Your task to perform on an android device: Open the web browser Image 0: 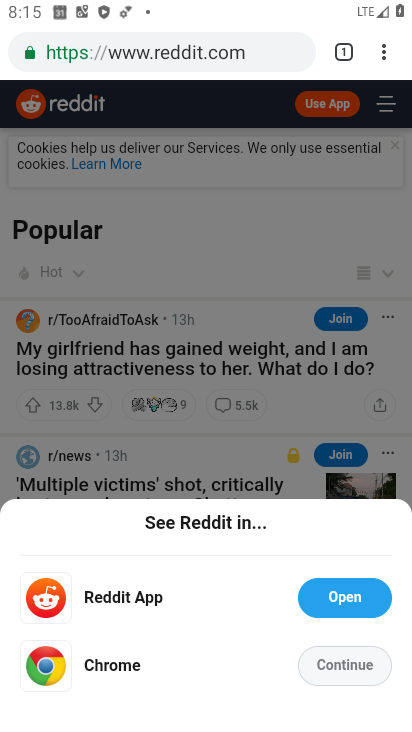
Step 0: press home button
Your task to perform on an android device: Open the web browser Image 1: 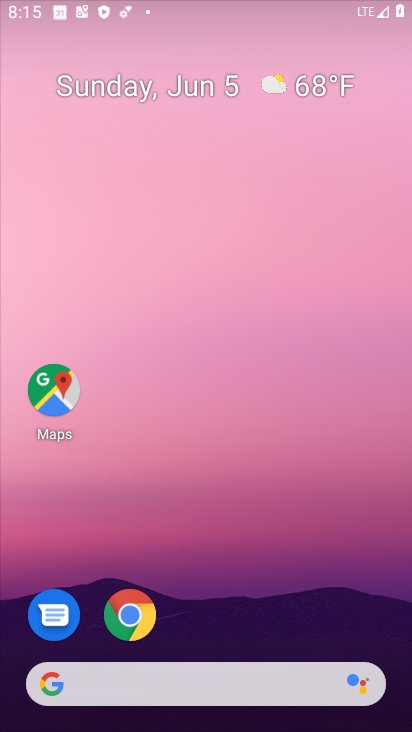
Step 1: click (122, 628)
Your task to perform on an android device: Open the web browser Image 2: 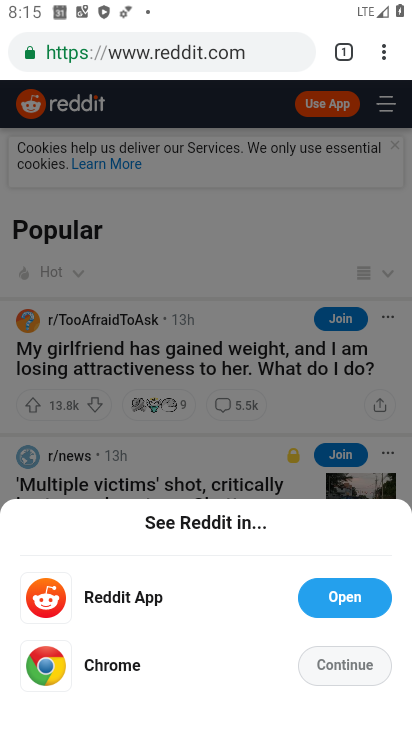
Step 2: task complete